Your task to perform on an android device: Open the phone app and click the voicemail tab. Image 0: 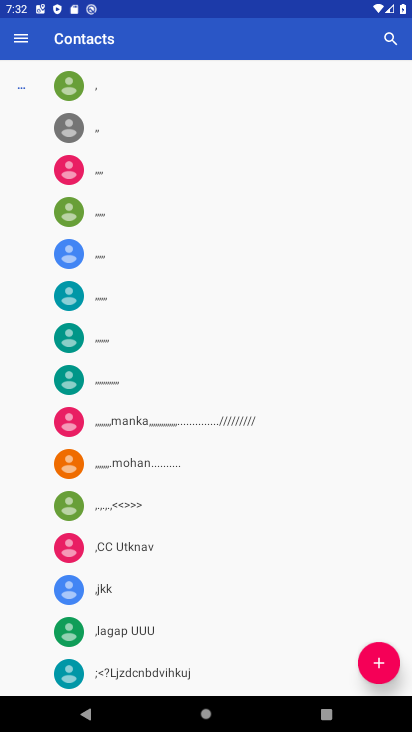
Step 0: press home button
Your task to perform on an android device: Open the phone app and click the voicemail tab. Image 1: 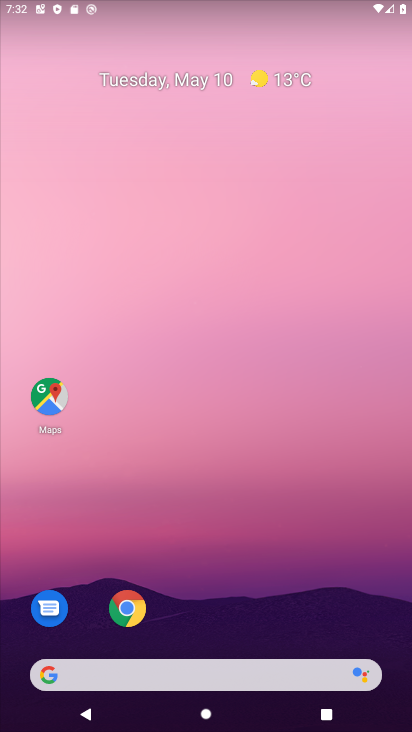
Step 1: drag from (244, 613) to (207, 255)
Your task to perform on an android device: Open the phone app and click the voicemail tab. Image 2: 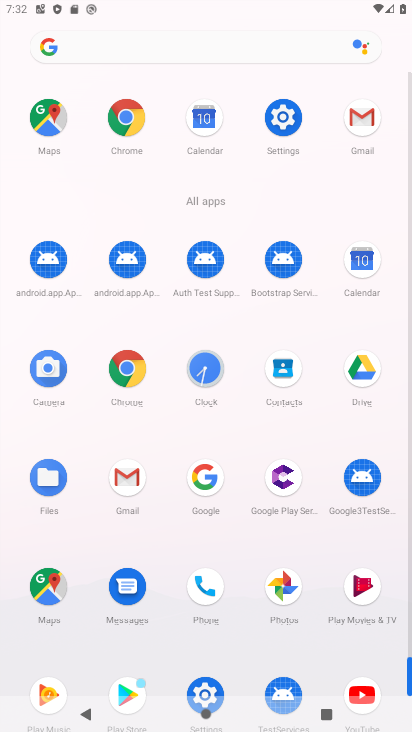
Step 2: click (200, 602)
Your task to perform on an android device: Open the phone app and click the voicemail tab. Image 3: 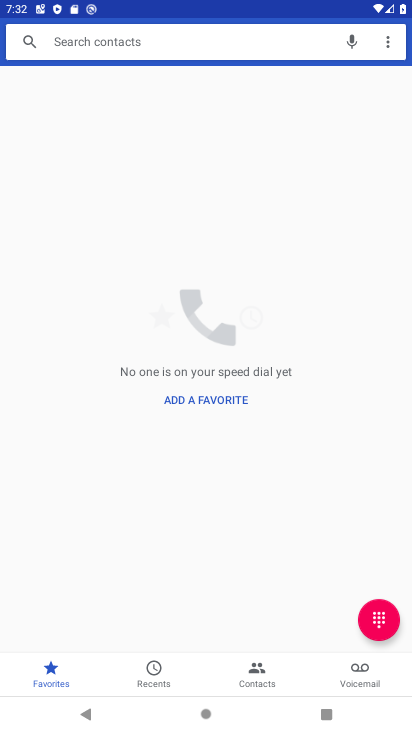
Step 3: click (352, 683)
Your task to perform on an android device: Open the phone app and click the voicemail tab. Image 4: 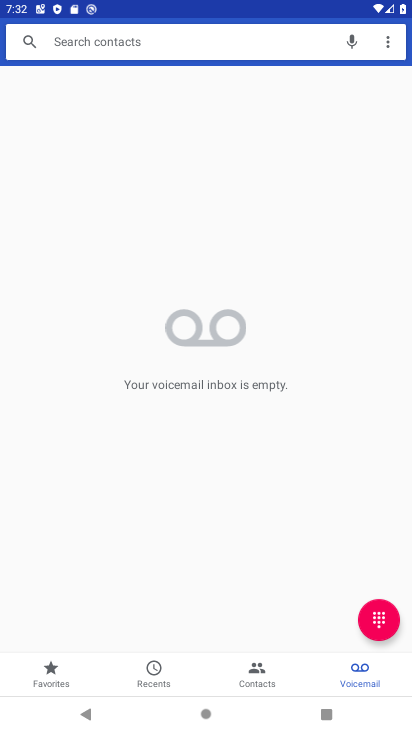
Step 4: task complete